Your task to perform on an android device: toggle sleep mode Image 0: 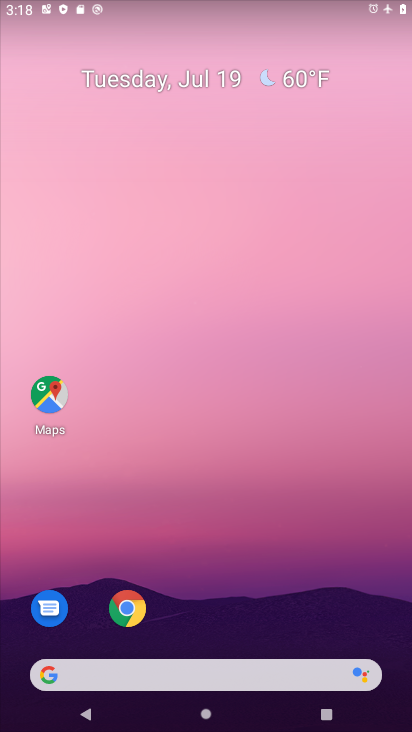
Step 0: drag from (233, 541) to (170, 124)
Your task to perform on an android device: toggle sleep mode Image 1: 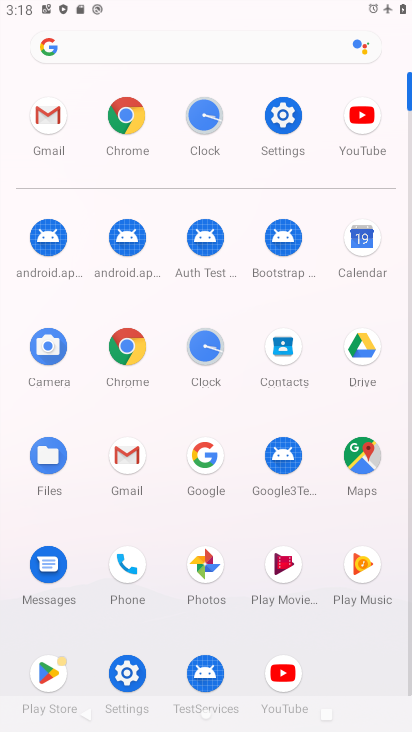
Step 1: click (286, 126)
Your task to perform on an android device: toggle sleep mode Image 2: 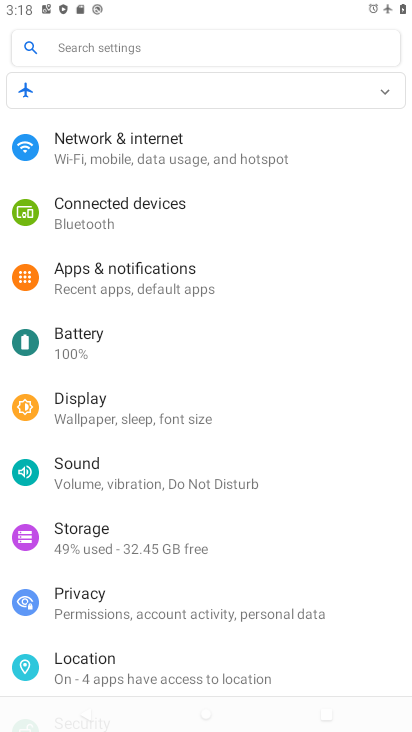
Step 2: click (99, 407)
Your task to perform on an android device: toggle sleep mode Image 3: 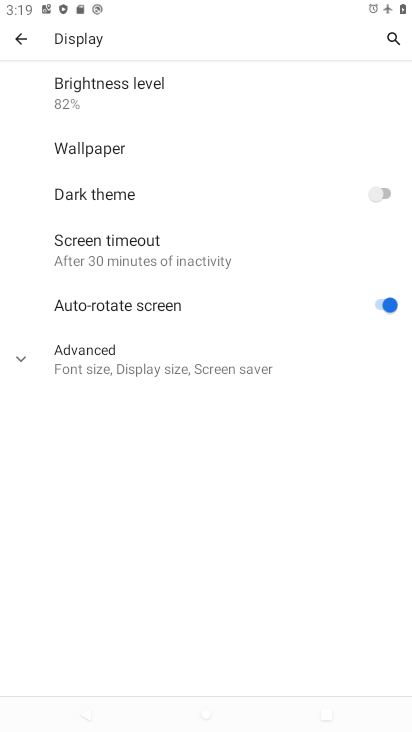
Step 3: click (147, 241)
Your task to perform on an android device: toggle sleep mode Image 4: 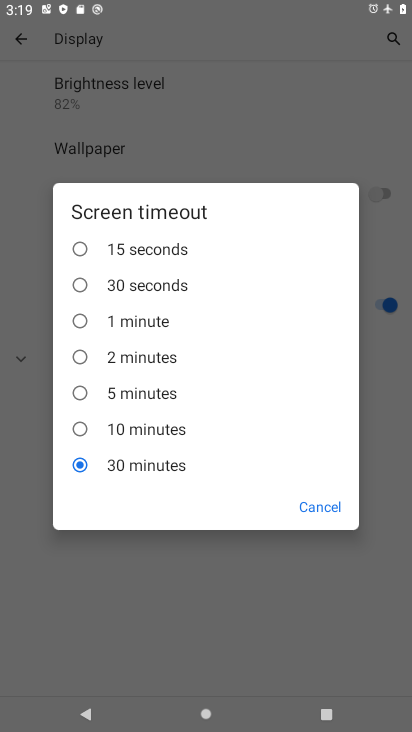
Step 4: click (99, 325)
Your task to perform on an android device: toggle sleep mode Image 5: 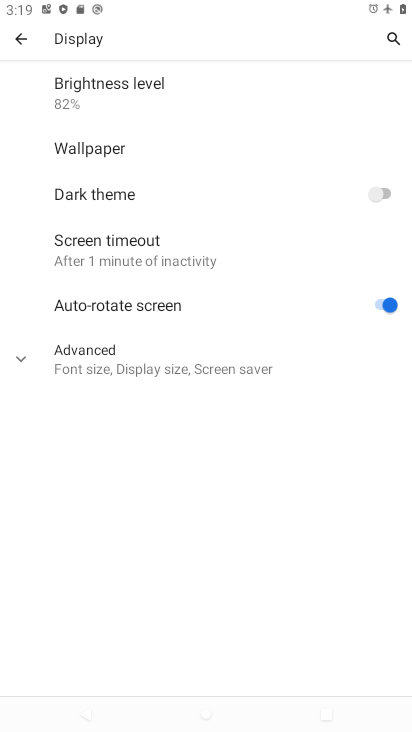
Step 5: task complete